Your task to perform on an android device: What's the weather? Image 0: 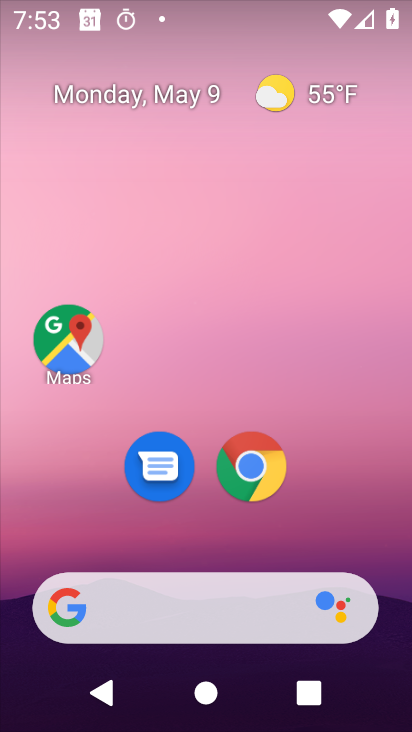
Step 0: drag from (55, 185) to (391, 275)
Your task to perform on an android device: What's the weather? Image 1: 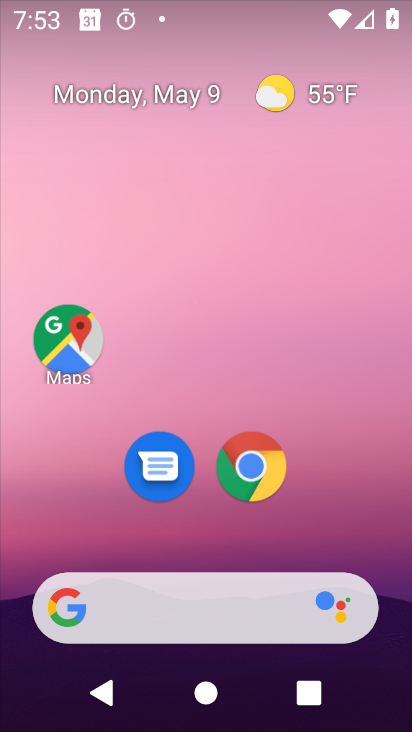
Step 1: drag from (4, 188) to (377, 259)
Your task to perform on an android device: What's the weather? Image 2: 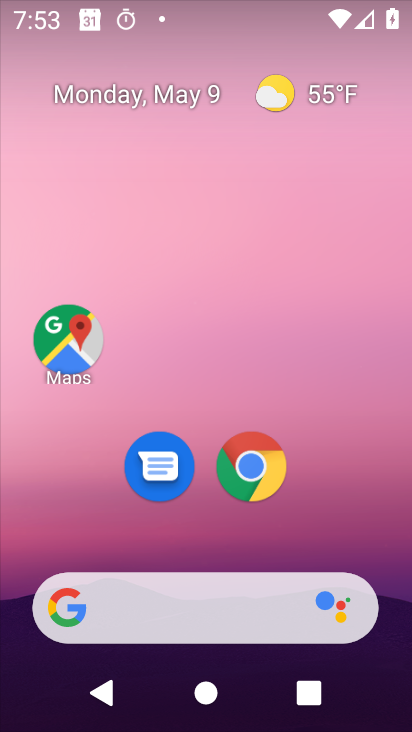
Step 2: drag from (9, 197) to (263, 267)
Your task to perform on an android device: What's the weather? Image 3: 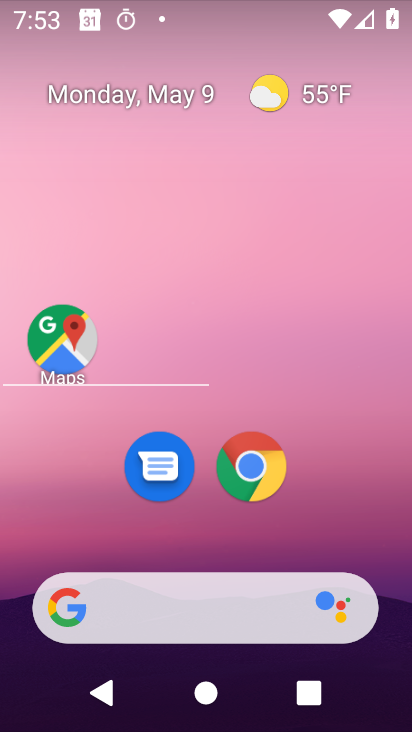
Step 3: drag from (9, 159) to (372, 298)
Your task to perform on an android device: What's the weather? Image 4: 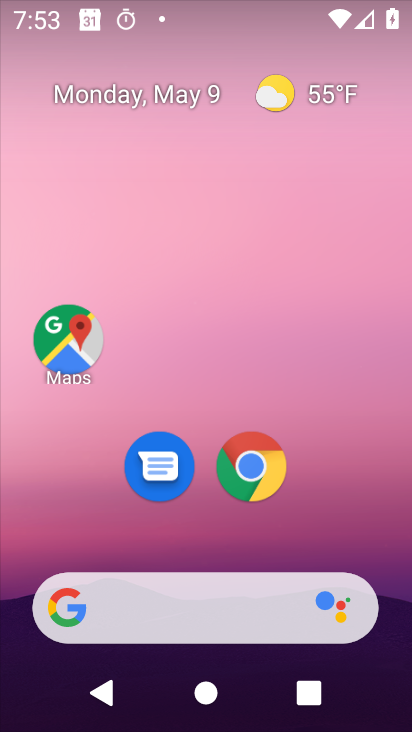
Step 4: drag from (3, 196) to (323, 275)
Your task to perform on an android device: What's the weather? Image 5: 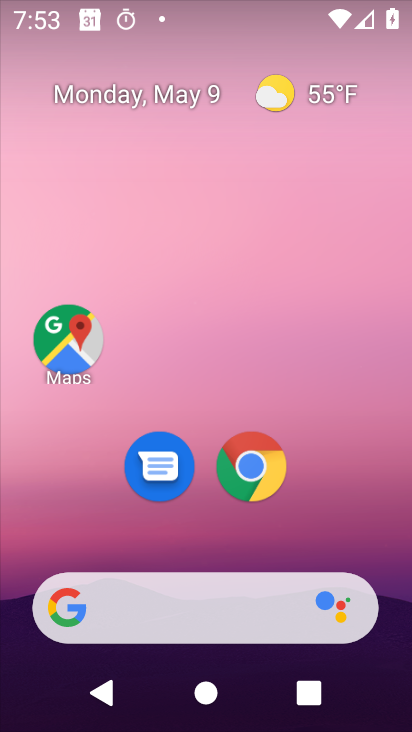
Step 5: drag from (410, 312) to (395, 235)
Your task to perform on an android device: What's the weather? Image 6: 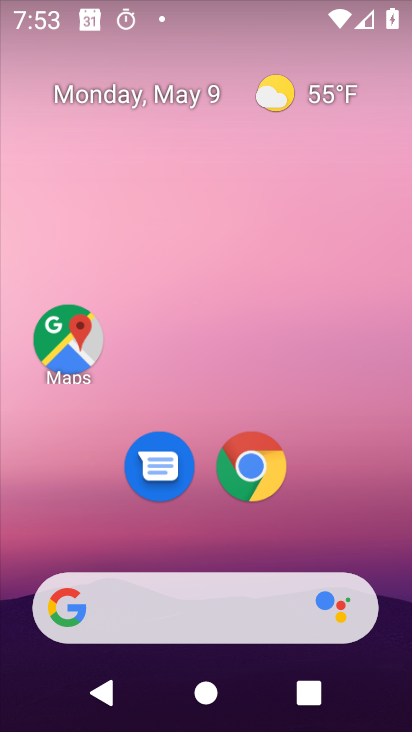
Step 6: drag from (15, 178) to (407, 340)
Your task to perform on an android device: What's the weather? Image 7: 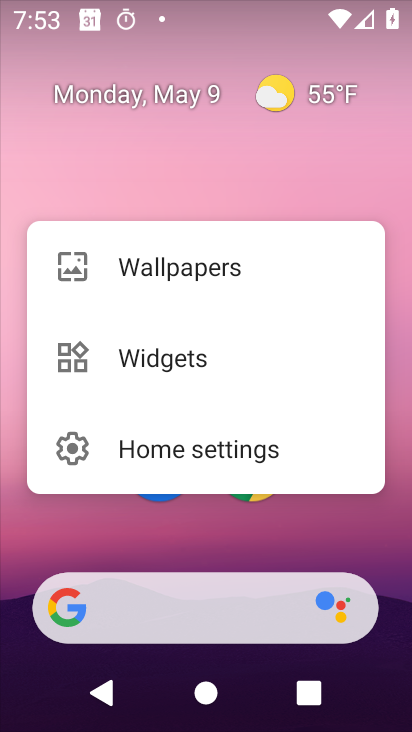
Step 7: drag from (12, 158) to (406, 247)
Your task to perform on an android device: What's the weather? Image 8: 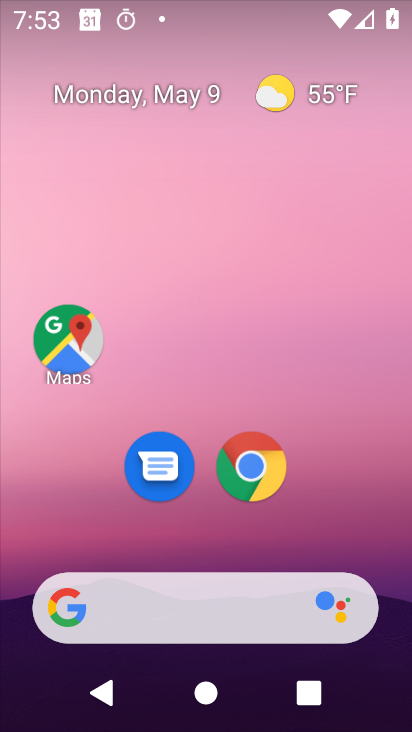
Step 8: click (214, 199)
Your task to perform on an android device: What's the weather? Image 9: 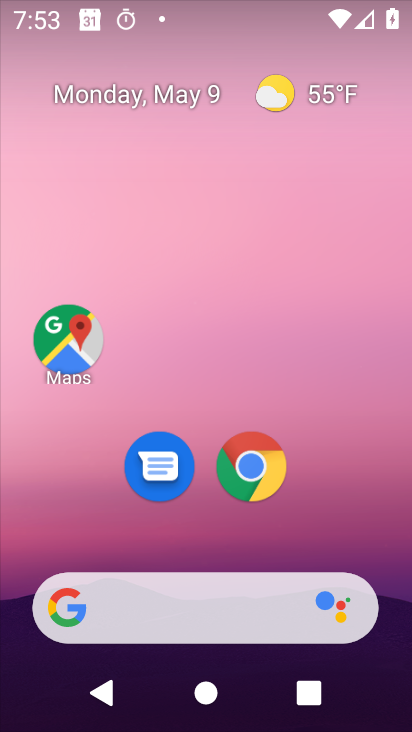
Step 9: drag from (5, 168) to (356, 256)
Your task to perform on an android device: What's the weather? Image 10: 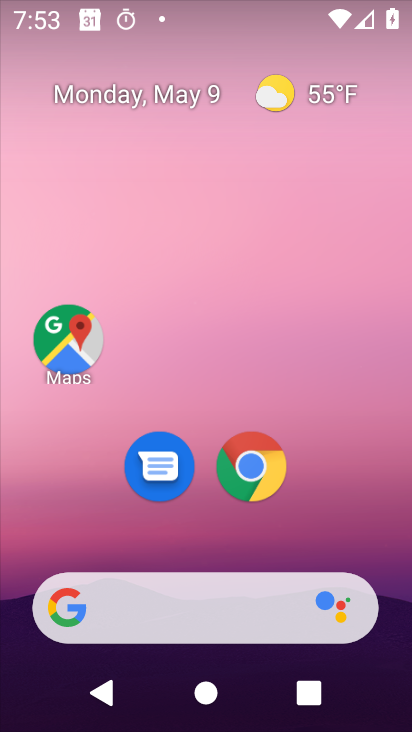
Step 10: drag from (1, 150) to (409, 478)
Your task to perform on an android device: What's the weather? Image 11: 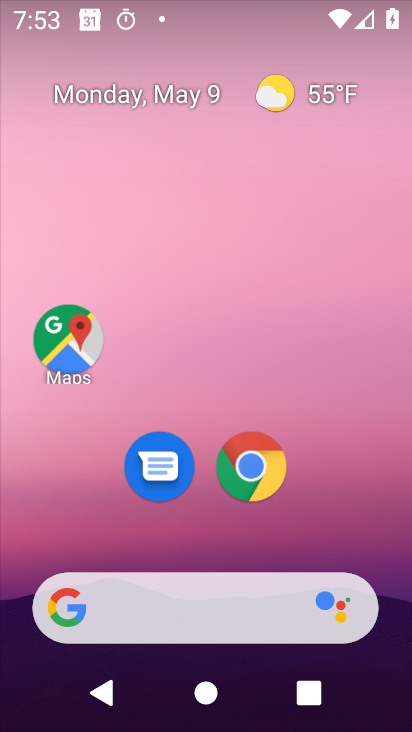
Step 11: drag from (3, 122) to (380, 204)
Your task to perform on an android device: What's the weather? Image 12: 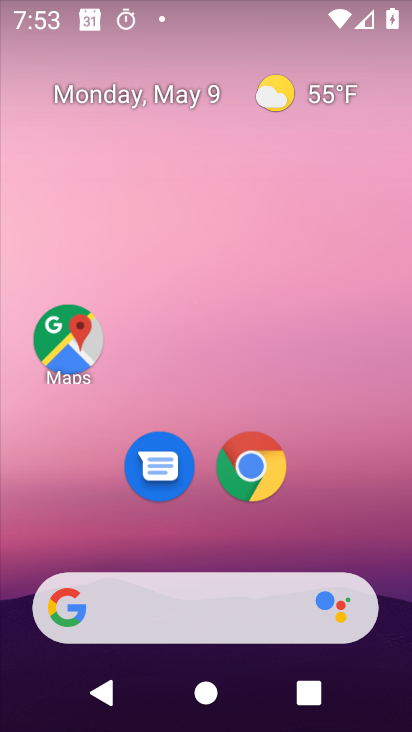
Step 12: click (266, 90)
Your task to perform on an android device: What's the weather? Image 13: 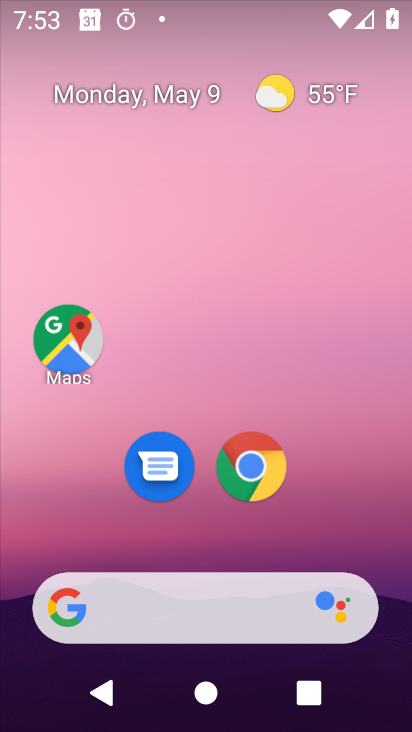
Step 13: click (266, 90)
Your task to perform on an android device: What's the weather? Image 14: 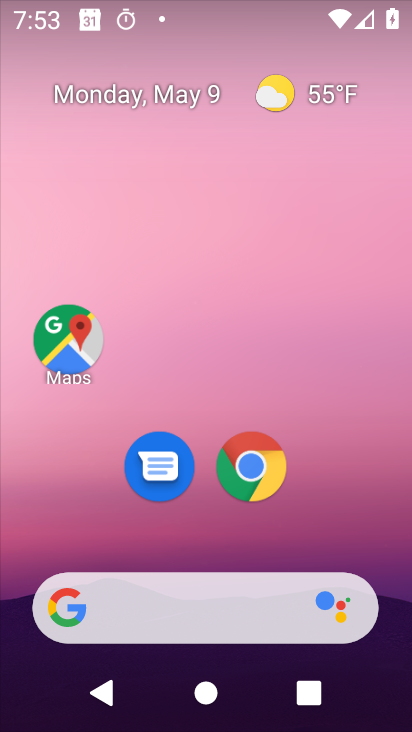
Step 14: click (267, 90)
Your task to perform on an android device: What's the weather? Image 15: 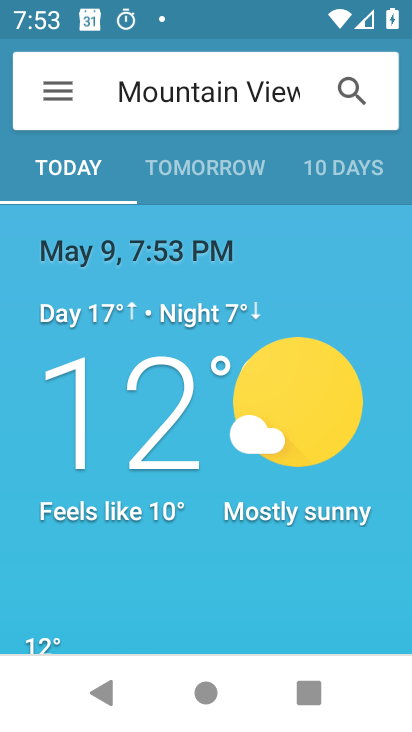
Step 15: drag from (226, 590) to (198, 233)
Your task to perform on an android device: What's the weather? Image 16: 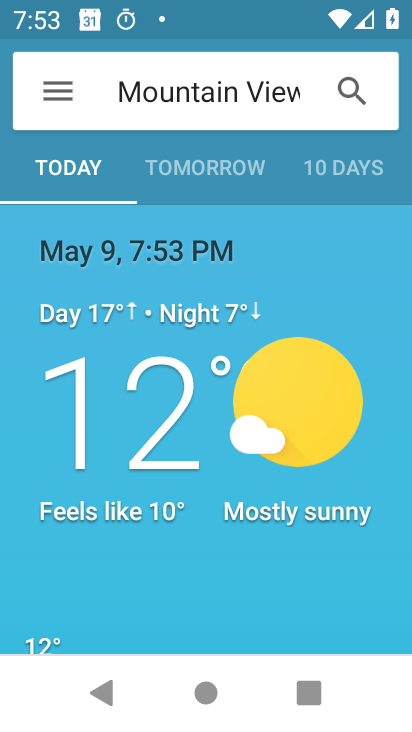
Step 16: drag from (211, 414) to (208, 202)
Your task to perform on an android device: What's the weather? Image 17: 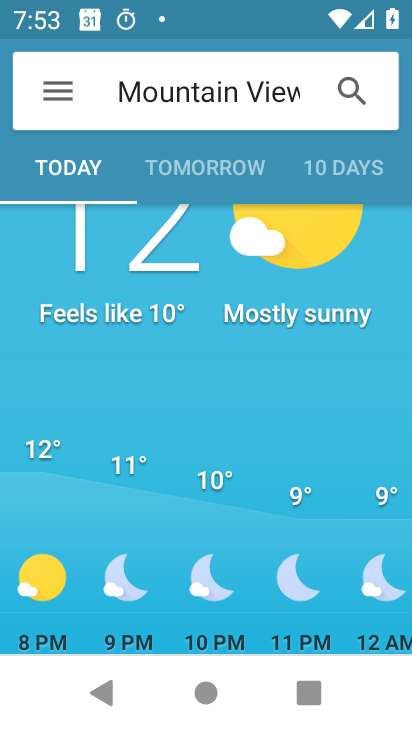
Step 17: drag from (224, 551) to (196, 251)
Your task to perform on an android device: What's the weather? Image 18: 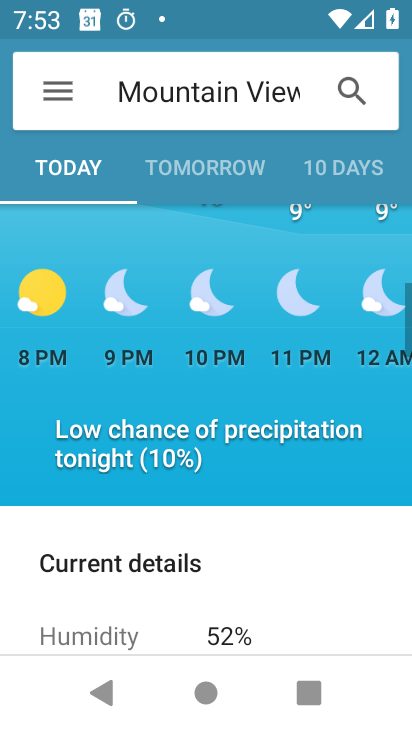
Step 18: drag from (218, 431) to (246, 224)
Your task to perform on an android device: What's the weather? Image 19: 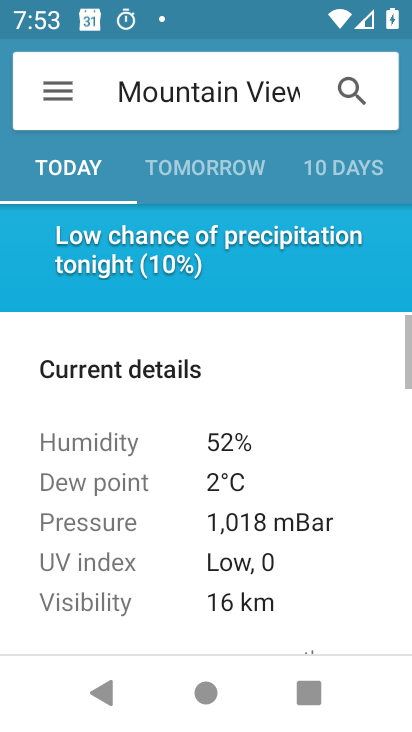
Step 19: drag from (198, 470) to (196, 230)
Your task to perform on an android device: What's the weather? Image 20: 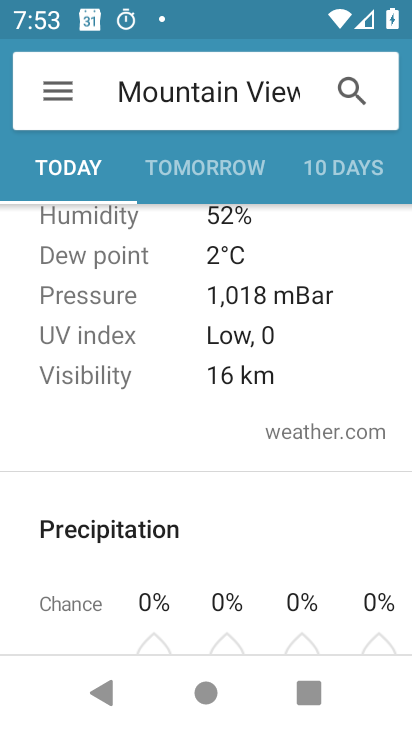
Step 20: drag from (157, 327) to (243, 620)
Your task to perform on an android device: What's the weather? Image 21: 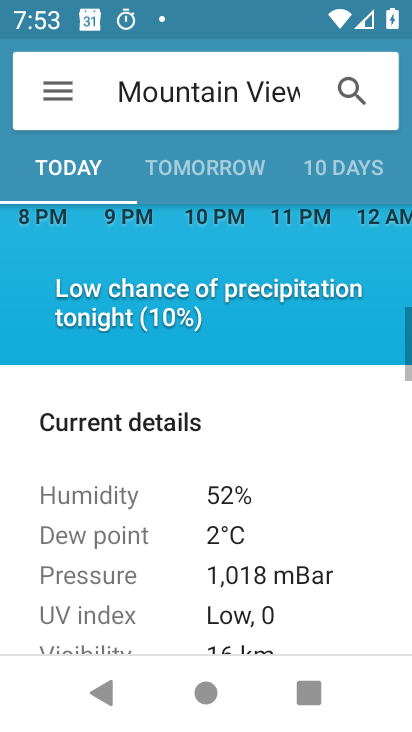
Step 21: drag from (168, 361) to (267, 648)
Your task to perform on an android device: What's the weather? Image 22: 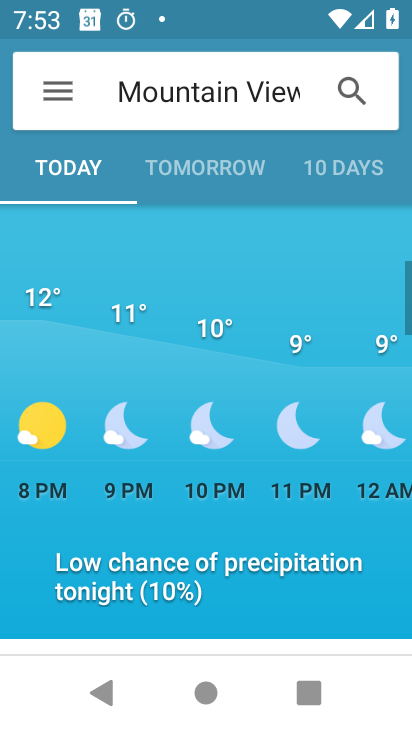
Step 22: drag from (222, 374) to (260, 657)
Your task to perform on an android device: What's the weather? Image 23: 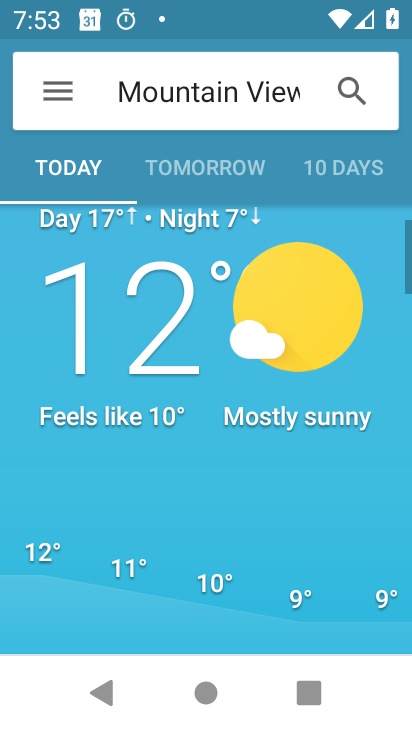
Step 23: drag from (215, 368) to (307, 727)
Your task to perform on an android device: What's the weather? Image 24: 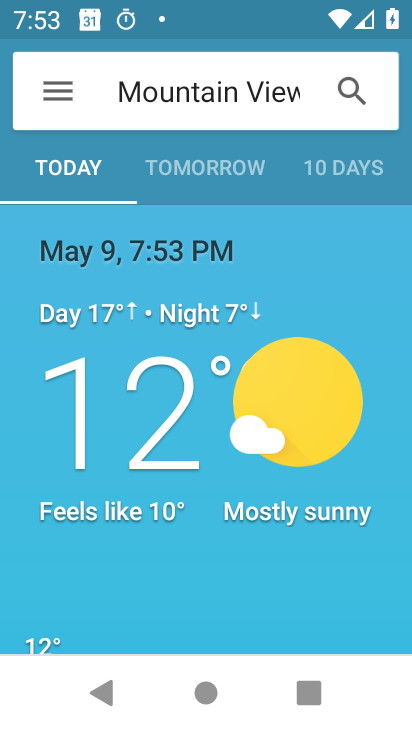
Step 24: click (202, 168)
Your task to perform on an android device: What's the weather? Image 25: 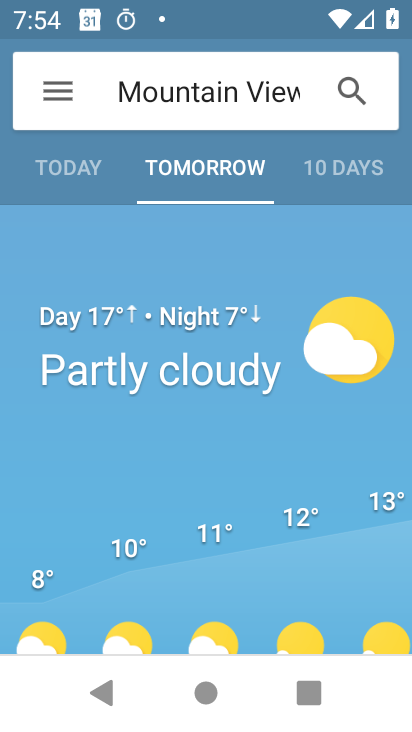
Step 25: task complete